Your task to perform on an android device: add a label to a message in the gmail app Image 0: 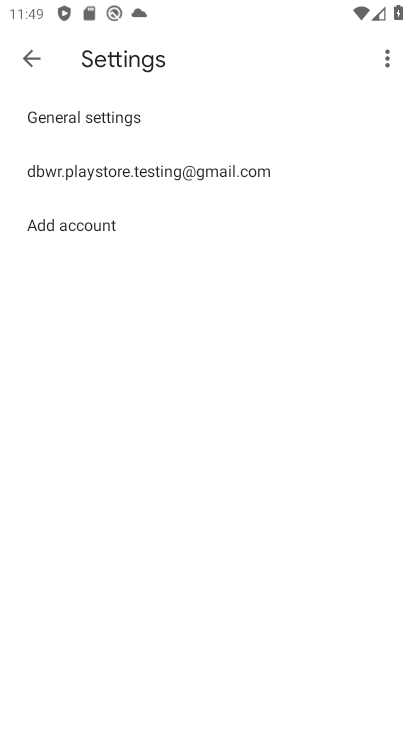
Step 0: click (13, 55)
Your task to perform on an android device: add a label to a message in the gmail app Image 1: 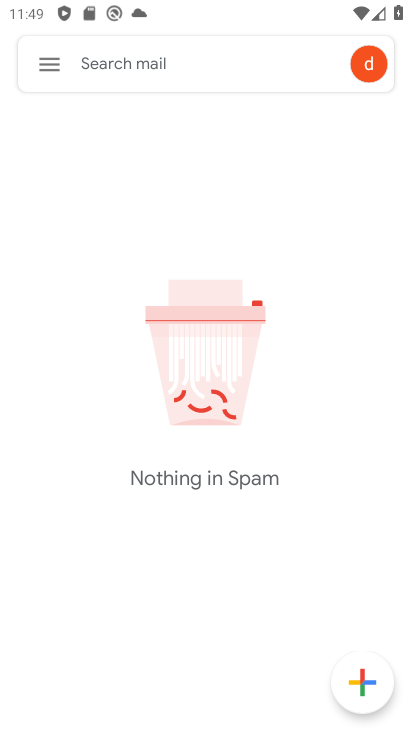
Step 1: click (61, 62)
Your task to perform on an android device: add a label to a message in the gmail app Image 2: 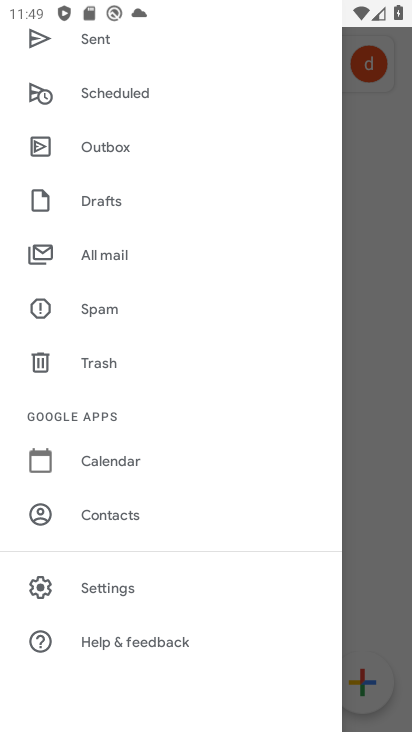
Step 2: click (111, 247)
Your task to perform on an android device: add a label to a message in the gmail app Image 3: 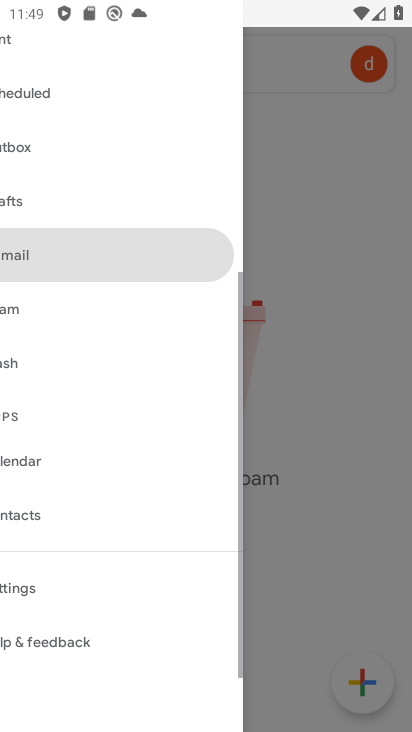
Step 3: click (111, 247)
Your task to perform on an android device: add a label to a message in the gmail app Image 4: 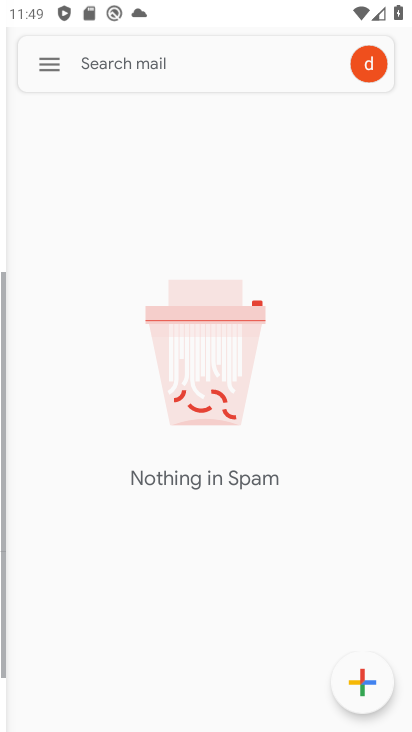
Step 4: click (111, 247)
Your task to perform on an android device: add a label to a message in the gmail app Image 5: 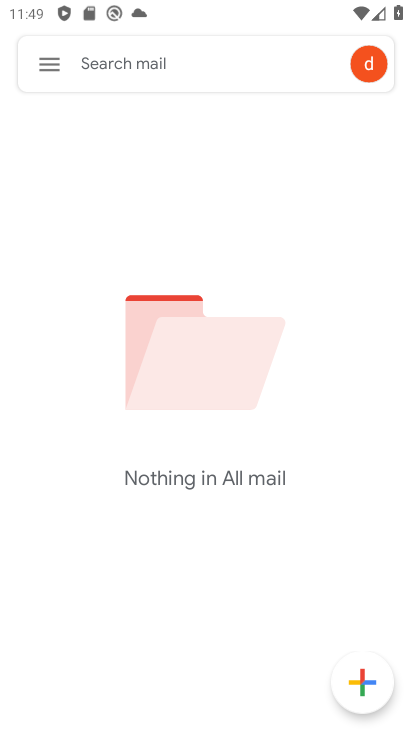
Step 5: task complete